Your task to perform on an android device: open chrome privacy settings Image 0: 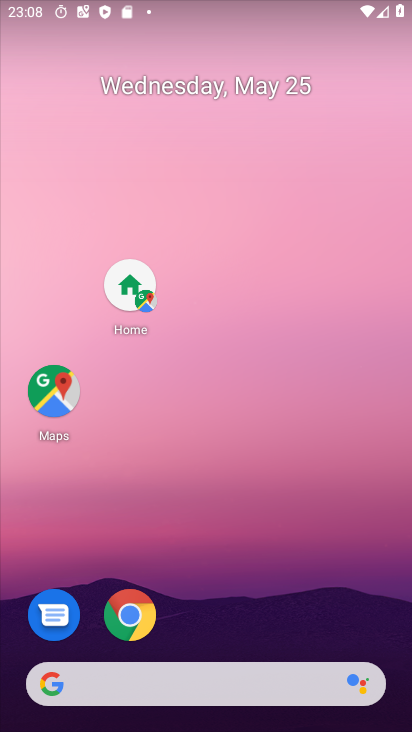
Step 0: click (119, 614)
Your task to perform on an android device: open chrome privacy settings Image 1: 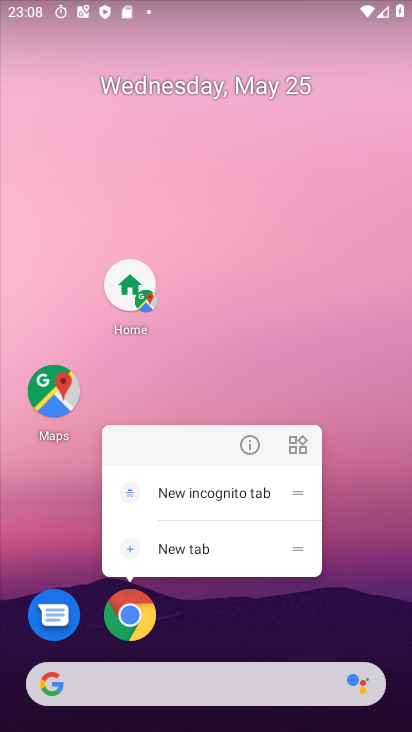
Step 1: click (127, 630)
Your task to perform on an android device: open chrome privacy settings Image 2: 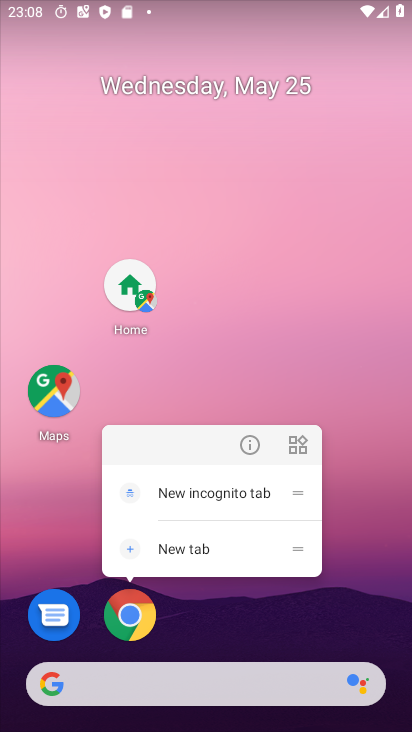
Step 2: click (142, 627)
Your task to perform on an android device: open chrome privacy settings Image 3: 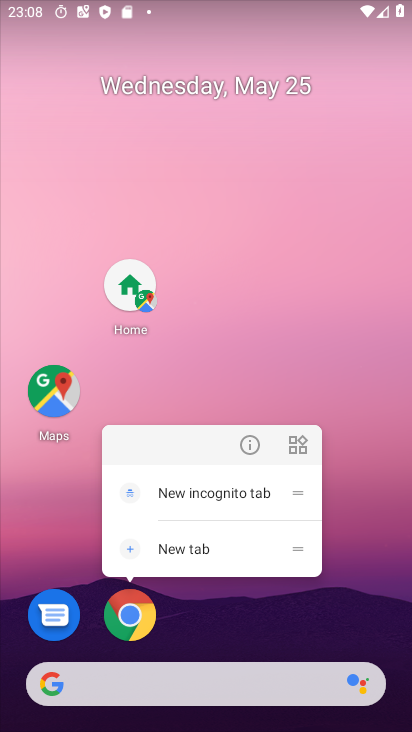
Step 3: click (130, 616)
Your task to perform on an android device: open chrome privacy settings Image 4: 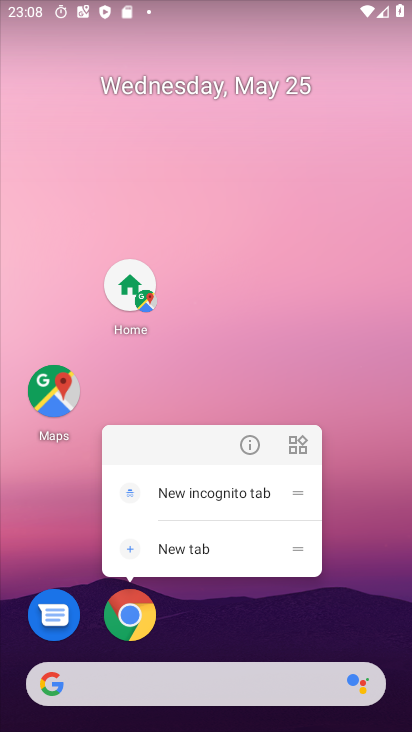
Step 4: click (127, 625)
Your task to perform on an android device: open chrome privacy settings Image 5: 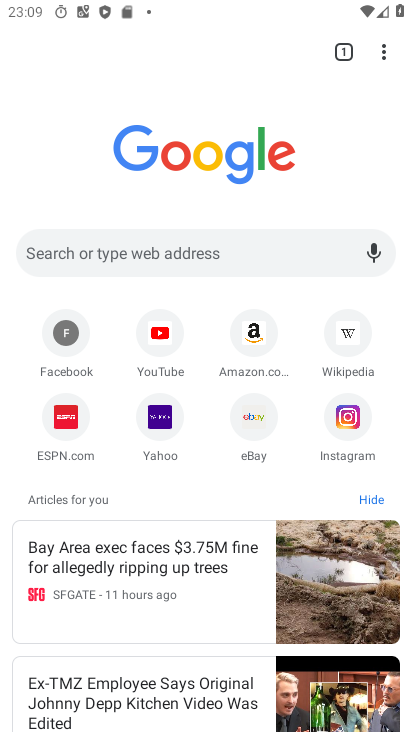
Step 5: click (380, 52)
Your task to perform on an android device: open chrome privacy settings Image 6: 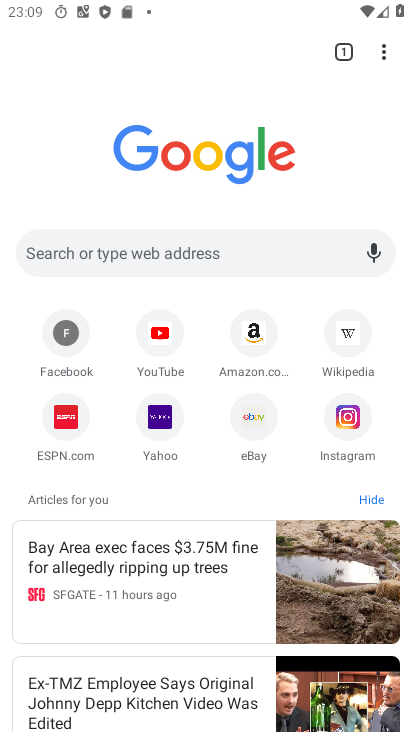
Step 6: click (385, 53)
Your task to perform on an android device: open chrome privacy settings Image 7: 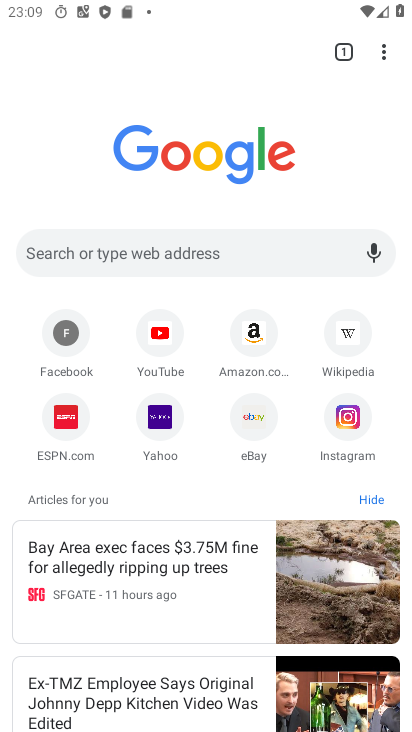
Step 7: drag from (386, 52) to (201, 440)
Your task to perform on an android device: open chrome privacy settings Image 8: 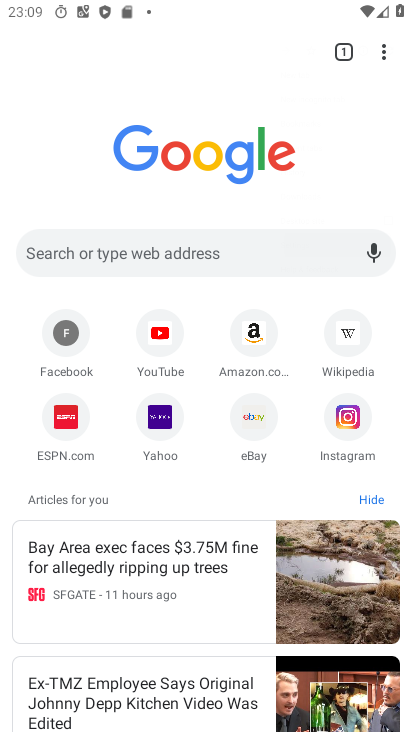
Step 8: click (201, 440)
Your task to perform on an android device: open chrome privacy settings Image 9: 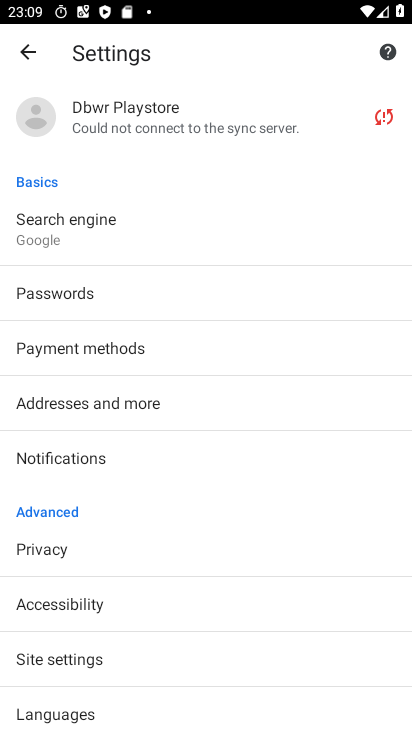
Step 9: click (110, 551)
Your task to perform on an android device: open chrome privacy settings Image 10: 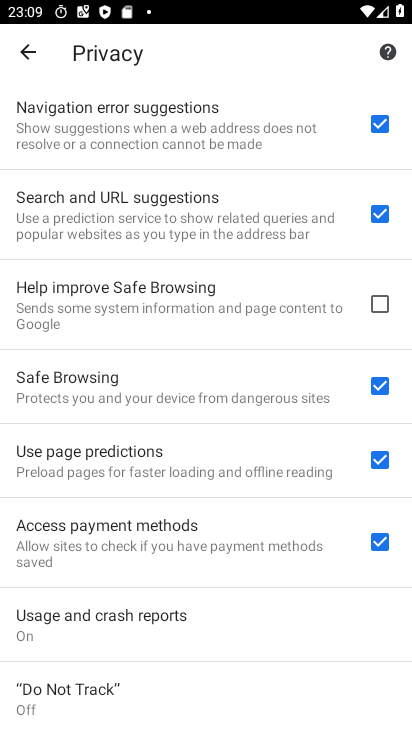
Step 10: task complete